Your task to perform on an android device: Check the weather Image 0: 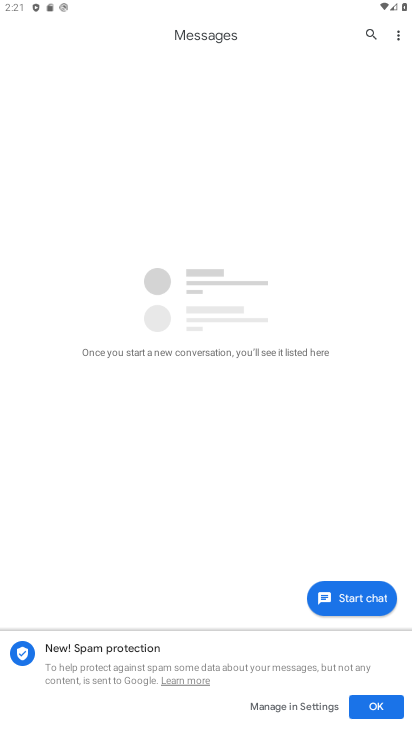
Step 0: press home button
Your task to perform on an android device: Check the weather Image 1: 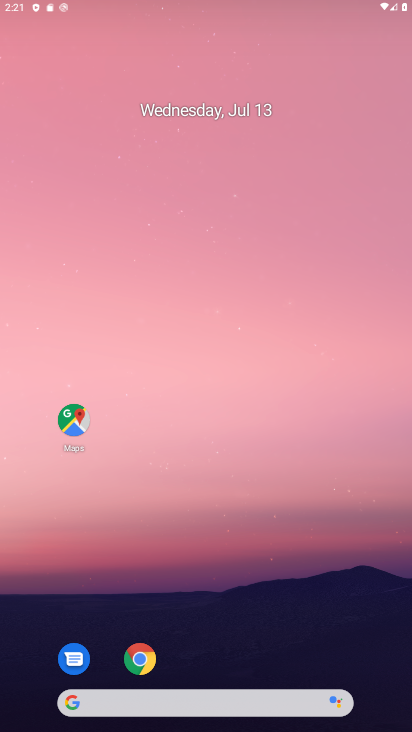
Step 1: drag from (194, 578) to (201, 186)
Your task to perform on an android device: Check the weather Image 2: 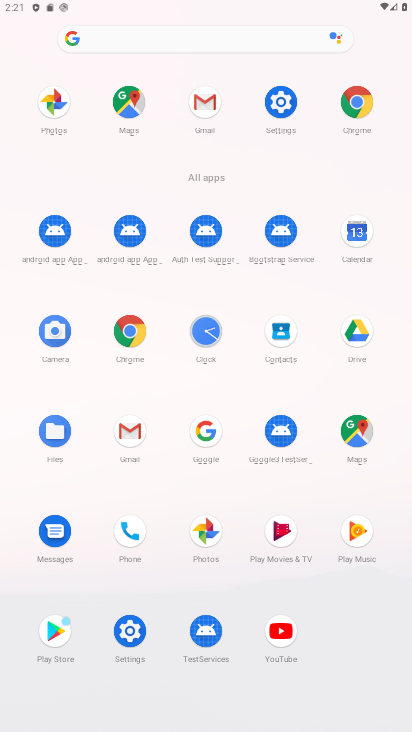
Step 2: click (364, 99)
Your task to perform on an android device: Check the weather Image 3: 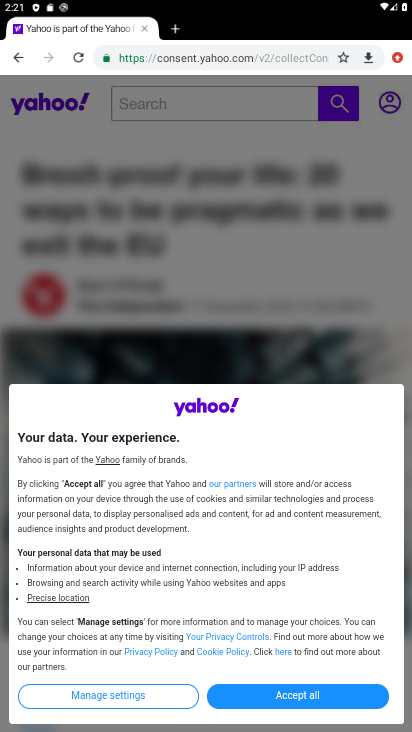
Step 3: click (166, 26)
Your task to perform on an android device: Check the weather Image 4: 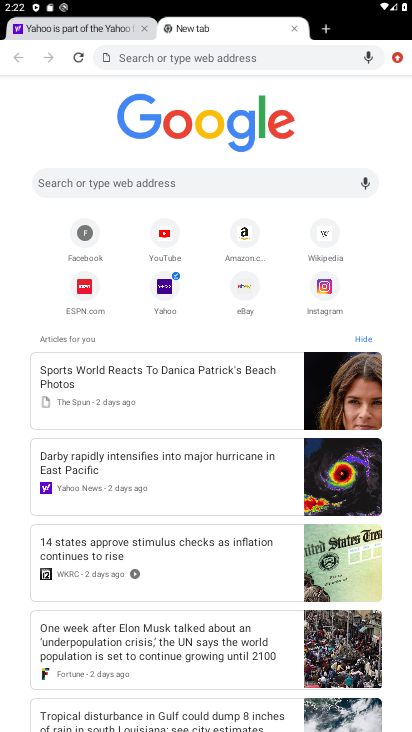
Step 4: click (210, 176)
Your task to perform on an android device: Check the weather Image 5: 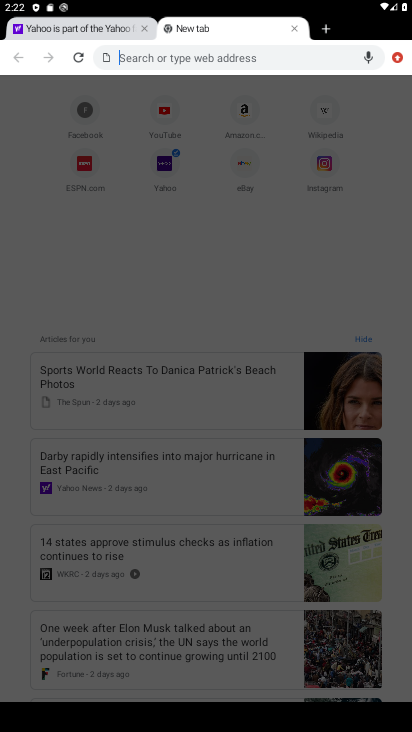
Step 5: type "Check the weather"
Your task to perform on an android device: Check the weather Image 6: 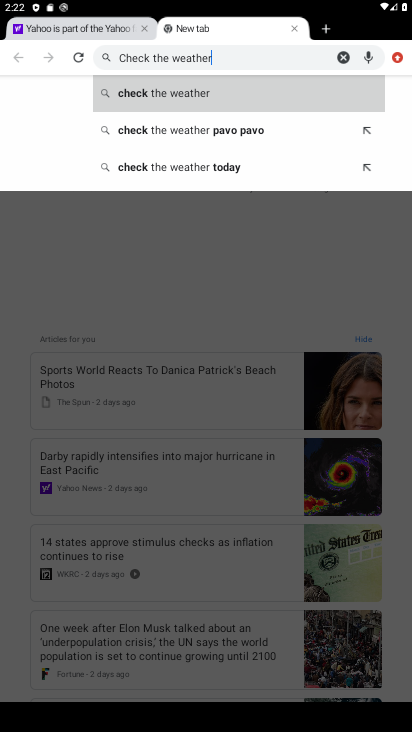
Step 6: type ""
Your task to perform on an android device: Check the weather Image 7: 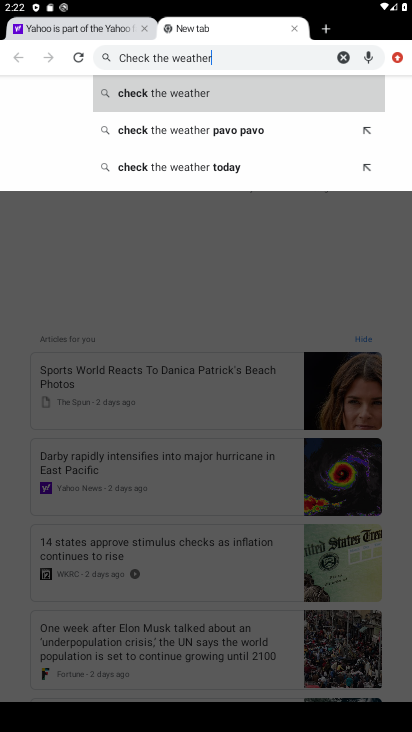
Step 7: click (220, 49)
Your task to perform on an android device: Check the weather Image 8: 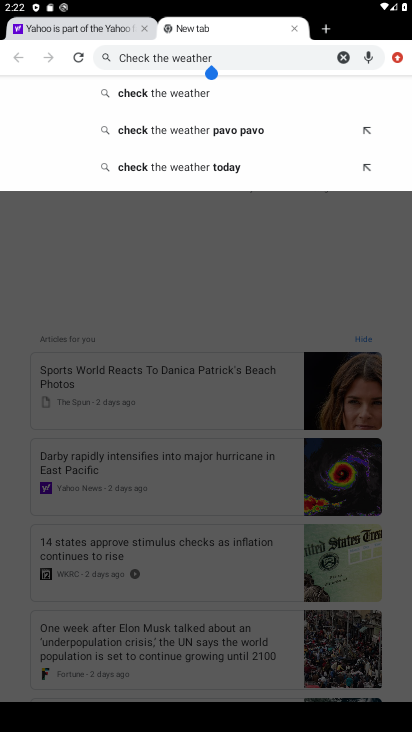
Step 8: click (195, 85)
Your task to perform on an android device: Check the weather Image 9: 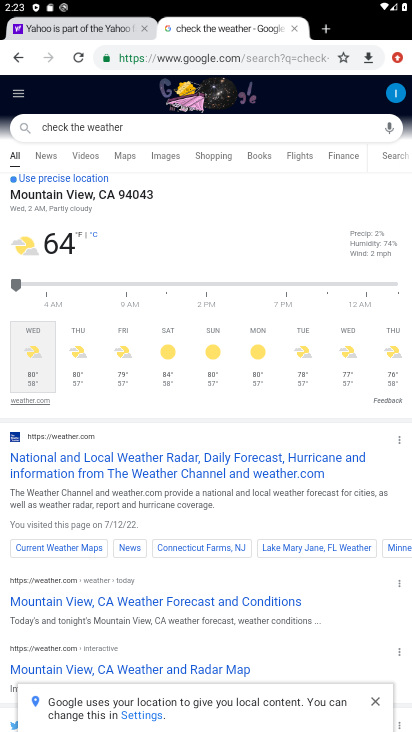
Step 9: task complete